Your task to perform on an android device: Go to eBay Image 0: 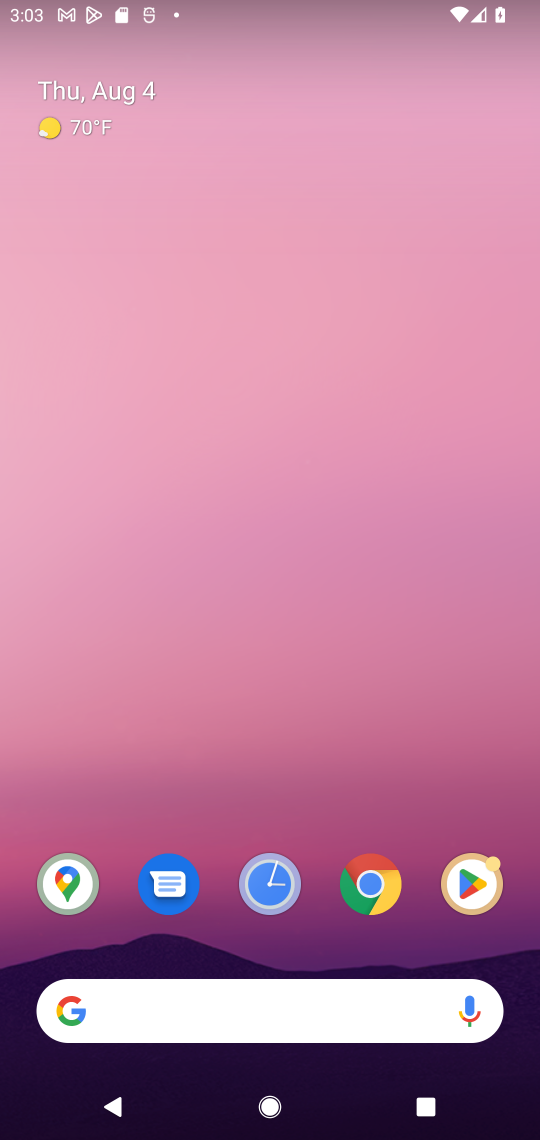
Step 0: click (394, 920)
Your task to perform on an android device: Go to eBay Image 1: 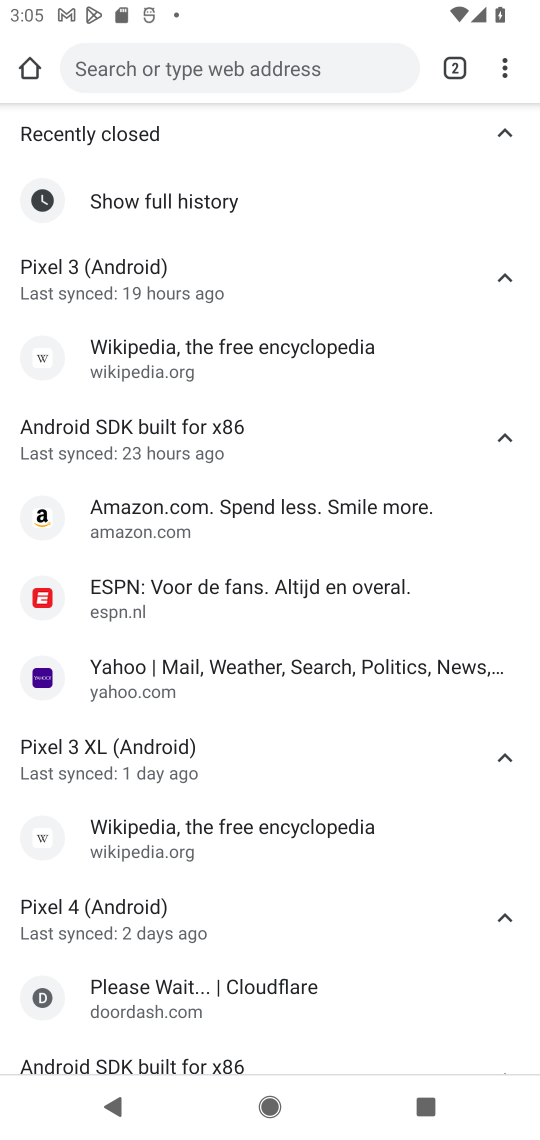
Step 1: task complete